Your task to perform on an android device: open the mobile data screen to see how much data has been used Image 0: 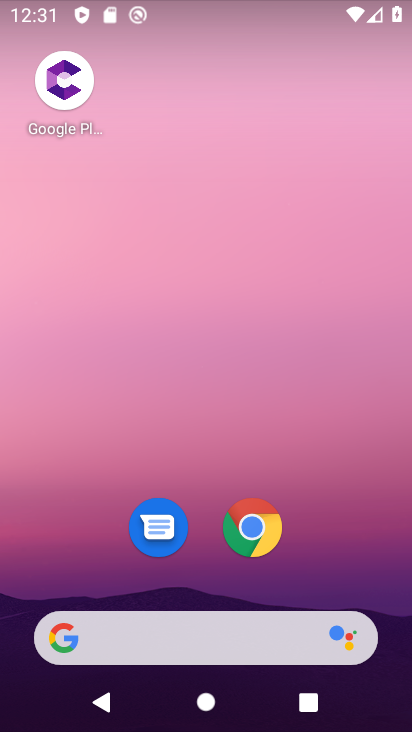
Step 0: drag from (230, 592) to (283, 200)
Your task to perform on an android device: open the mobile data screen to see how much data has been used Image 1: 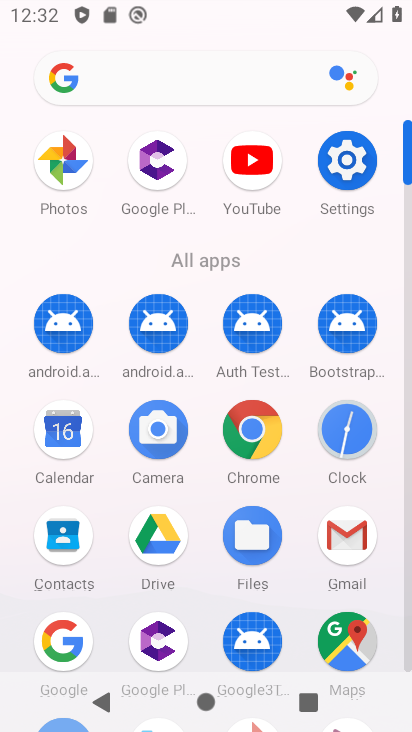
Step 1: click (347, 159)
Your task to perform on an android device: open the mobile data screen to see how much data has been used Image 2: 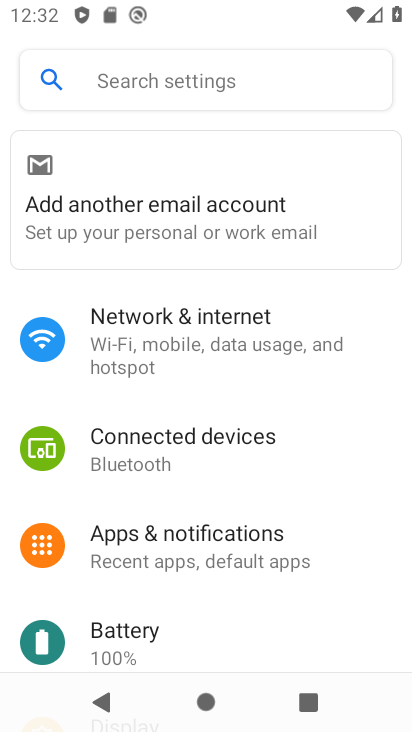
Step 2: drag from (221, 449) to (234, 301)
Your task to perform on an android device: open the mobile data screen to see how much data has been used Image 3: 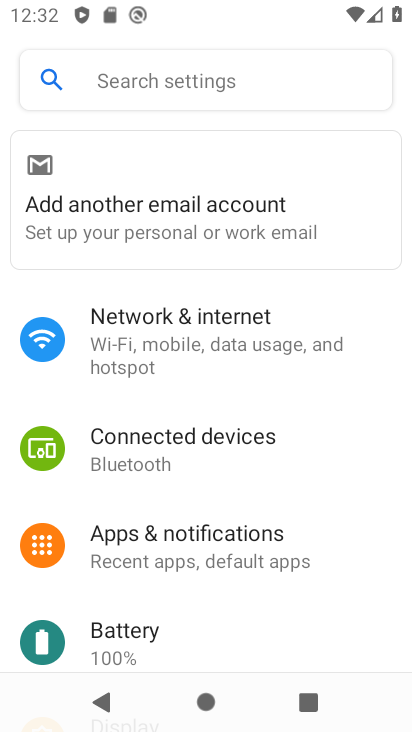
Step 3: click (196, 335)
Your task to perform on an android device: open the mobile data screen to see how much data has been used Image 4: 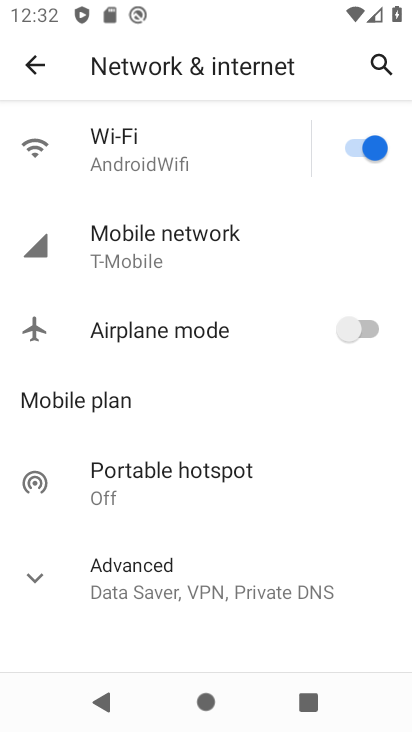
Step 4: click (147, 257)
Your task to perform on an android device: open the mobile data screen to see how much data has been used Image 5: 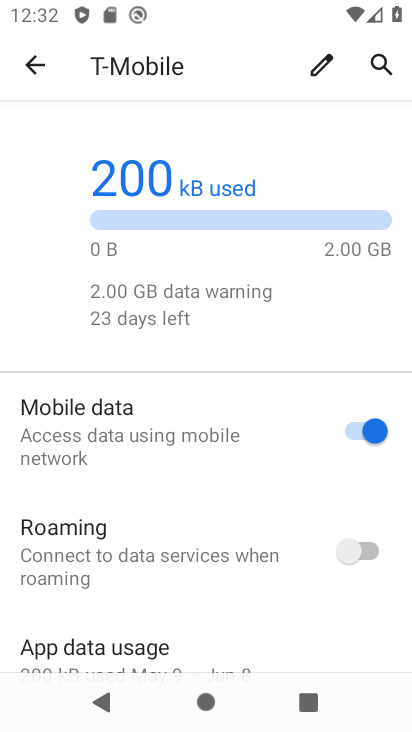
Step 5: task complete